Your task to perform on an android device: open wifi settings Image 0: 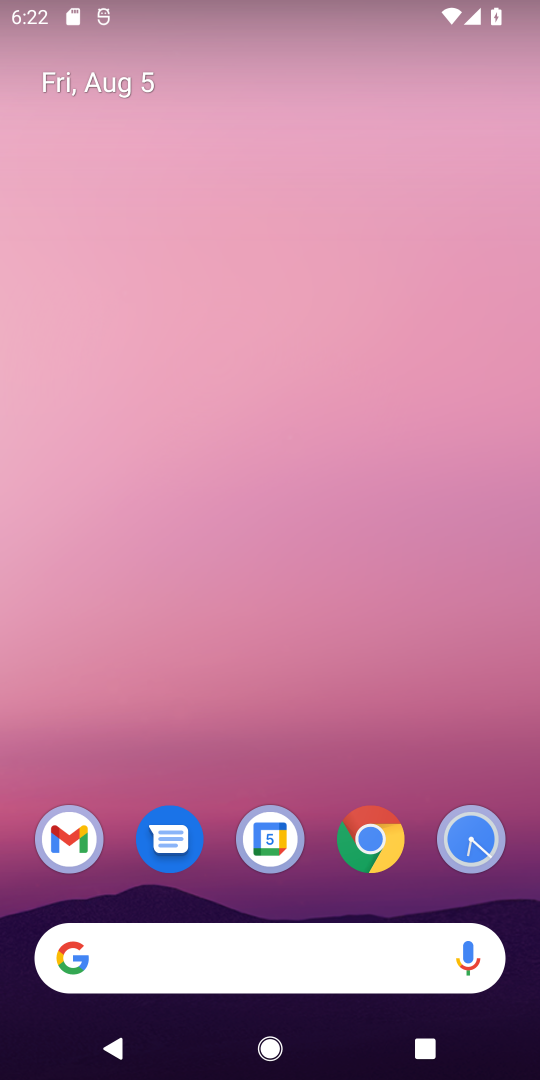
Step 0: drag from (266, 592) to (291, 140)
Your task to perform on an android device: open wifi settings Image 1: 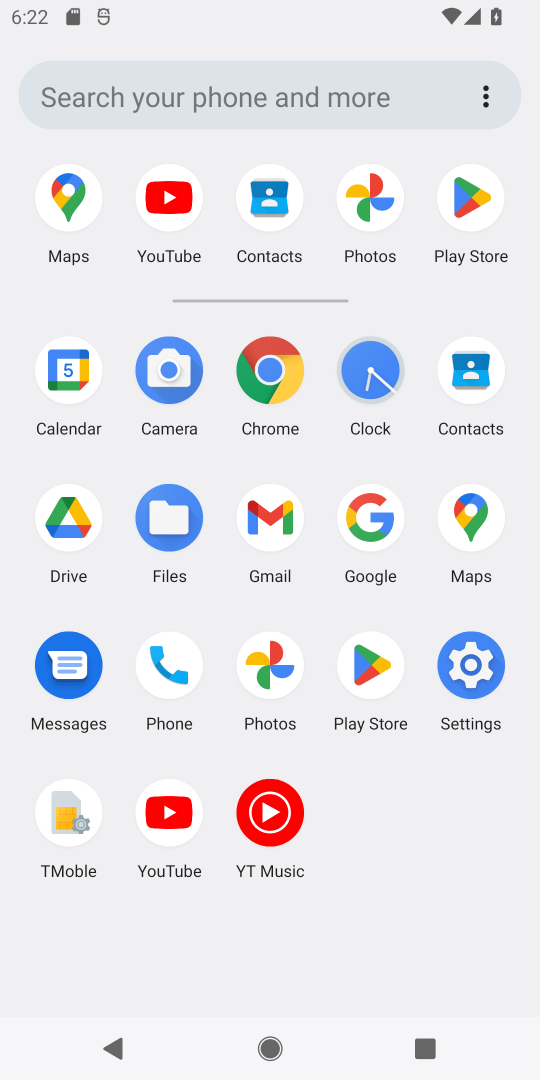
Step 1: click (452, 674)
Your task to perform on an android device: open wifi settings Image 2: 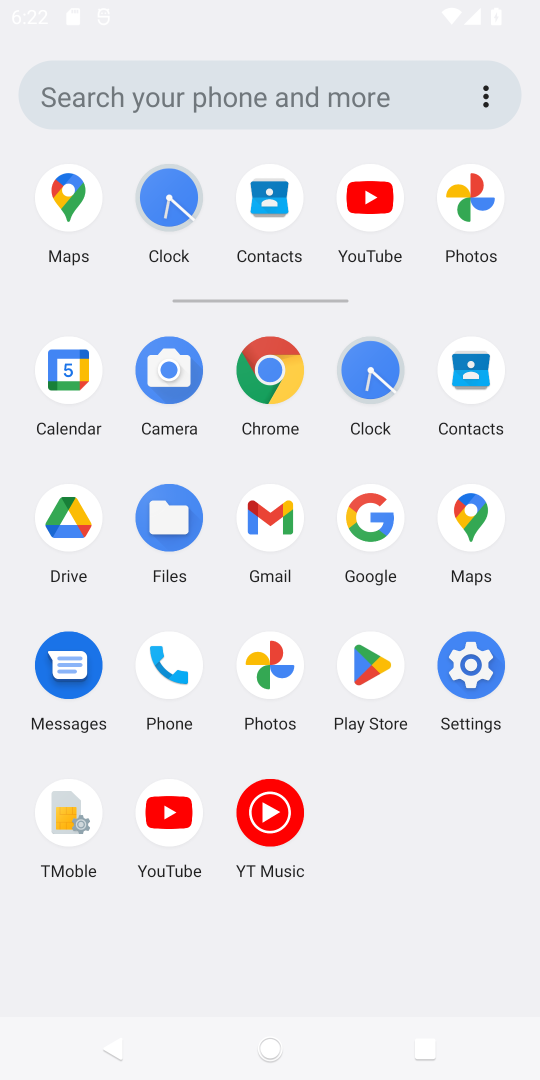
Step 2: click (208, 369)
Your task to perform on an android device: open wifi settings Image 3: 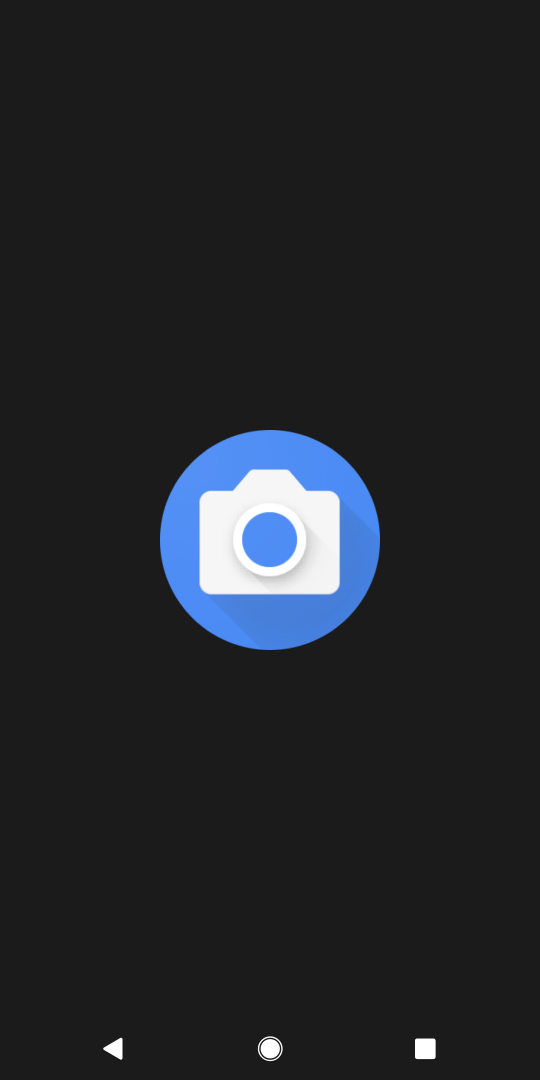
Step 3: press home button
Your task to perform on an android device: open wifi settings Image 4: 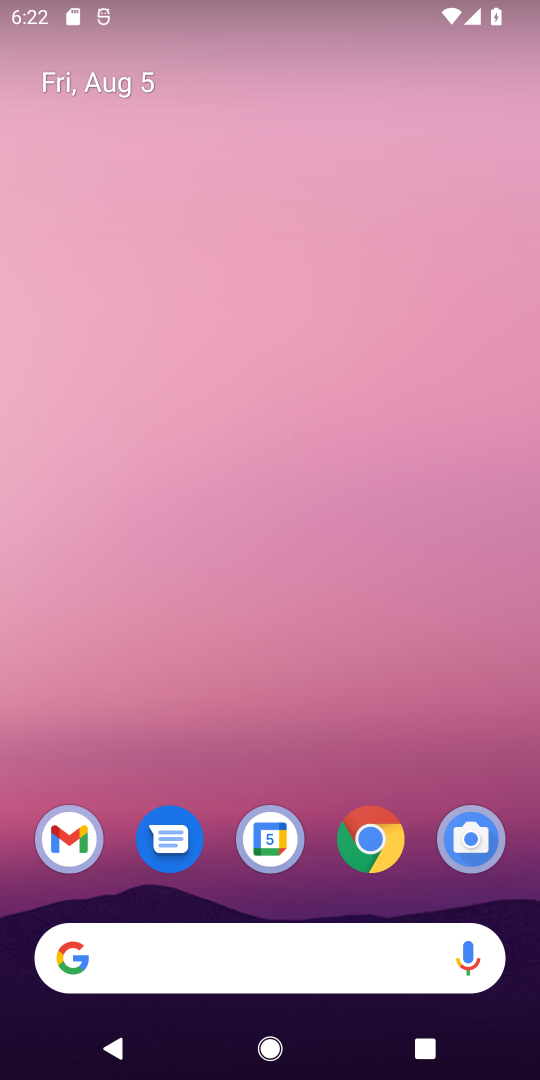
Step 4: drag from (236, 578) to (236, 87)
Your task to perform on an android device: open wifi settings Image 5: 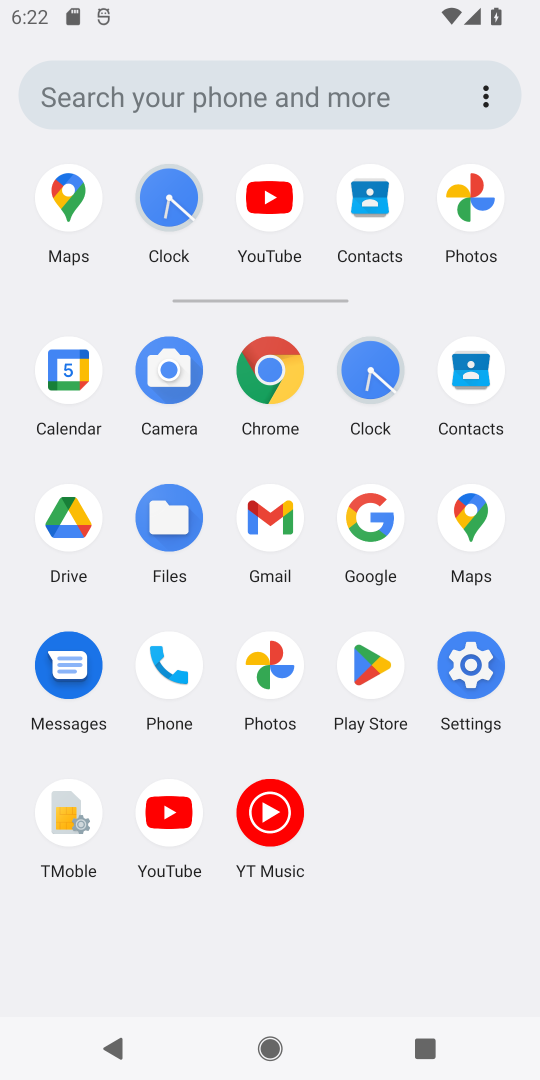
Step 5: click (477, 649)
Your task to perform on an android device: open wifi settings Image 6: 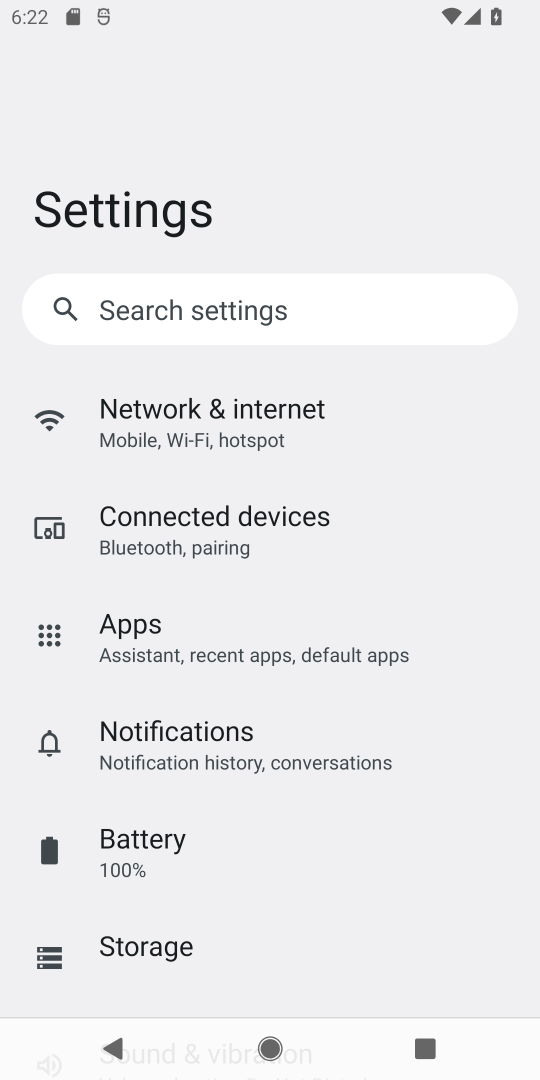
Step 6: click (257, 439)
Your task to perform on an android device: open wifi settings Image 7: 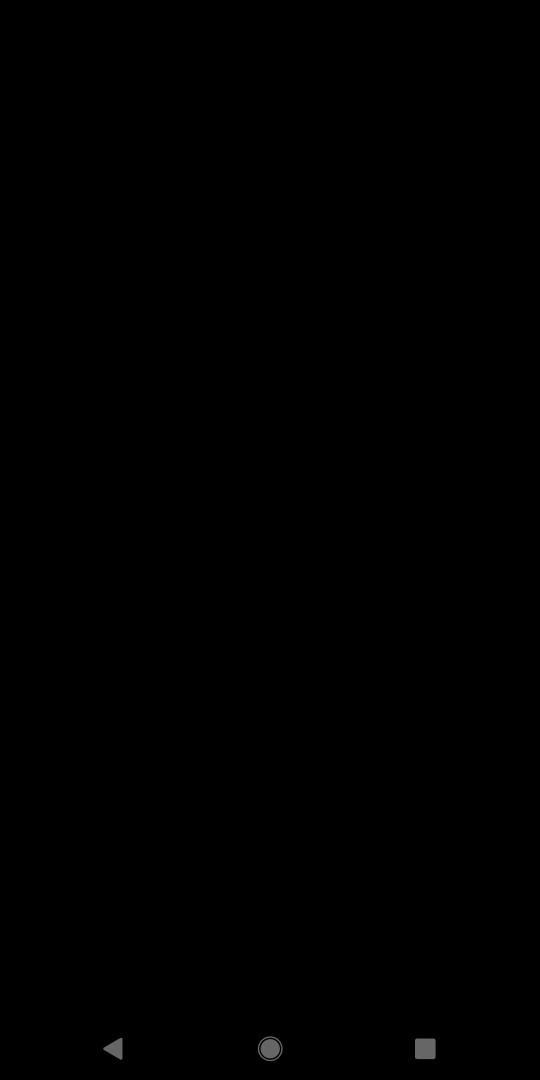
Step 7: task complete